Your task to perform on an android device: toggle data saver in the chrome app Image 0: 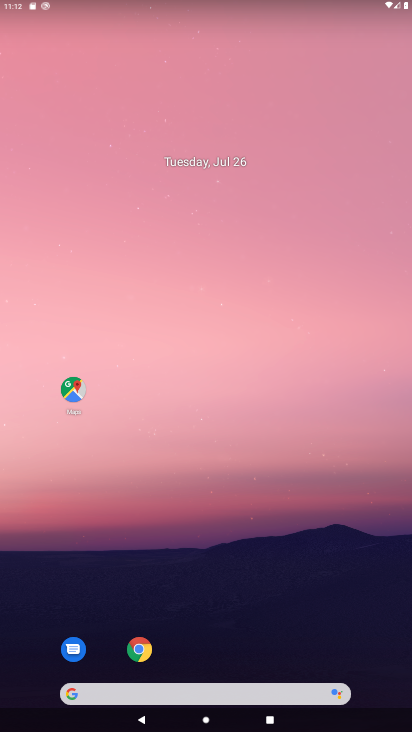
Step 0: click (144, 651)
Your task to perform on an android device: toggle data saver in the chrome app Image 1: 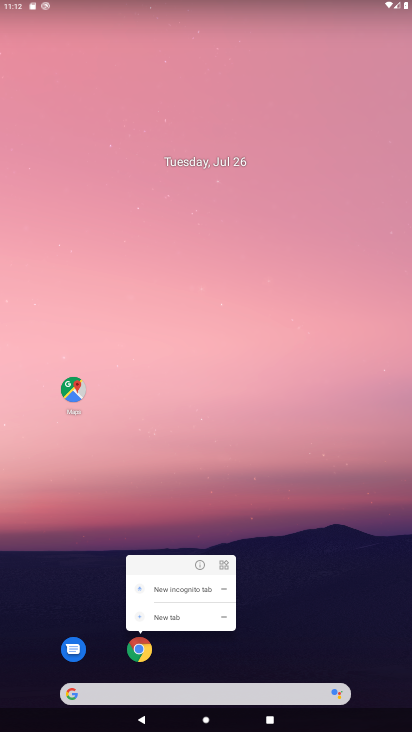
Step 1: click (142, 658)
Your task to perform on an android device: toggle data saver in the chrome app Image 2: 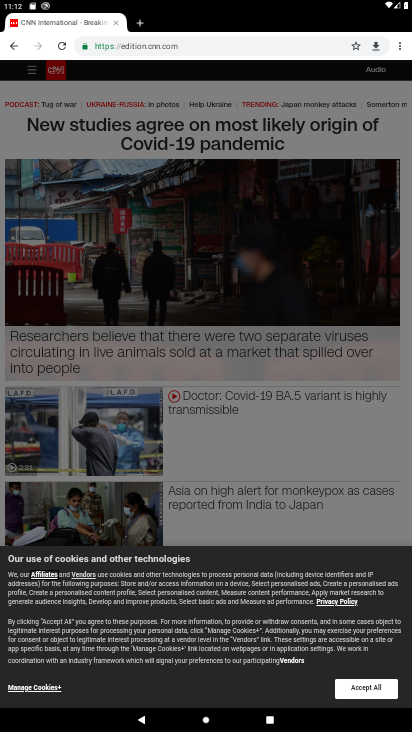
Step 2: click (397, 47)
Your task to perform on an android device: toggle data saver in the chrome app Image 3: 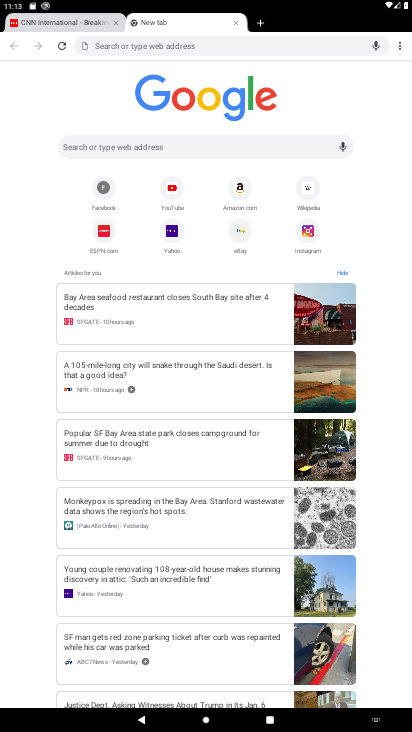
Step 3: click (398, 47)
Your task to perform on an android device: toggle data saver in the chrome app Image 4: 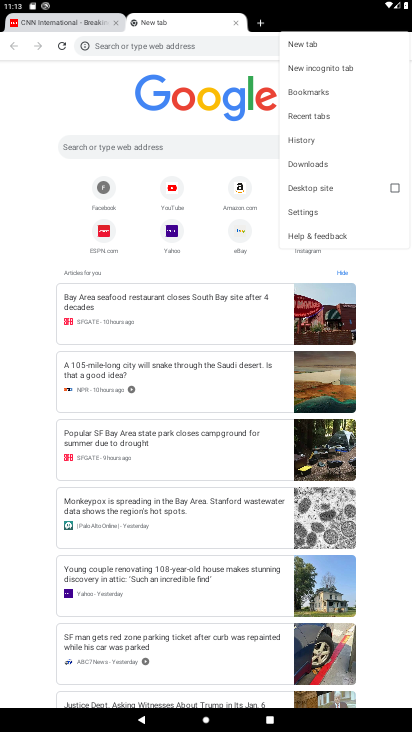
Step 4: click (304, 213)
Your task to perform on an android device: toggle data saver in the chrome app Image 5: 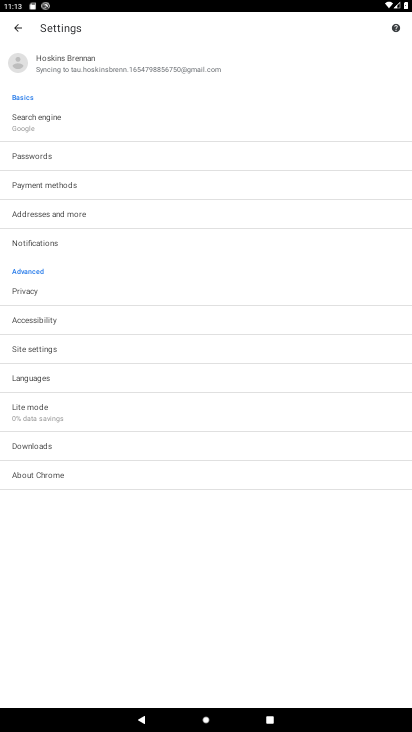
Step 5: click (44, 415)
Your task to perform on an android device: toggle data saver in the chrome app Image 6: 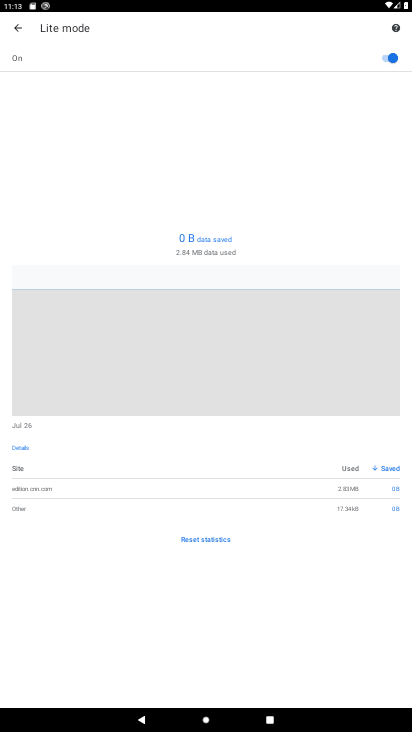
Step 6: click (367, 62)
Your task to perform on an android device: toggle data saver in the chrome app Image 7: 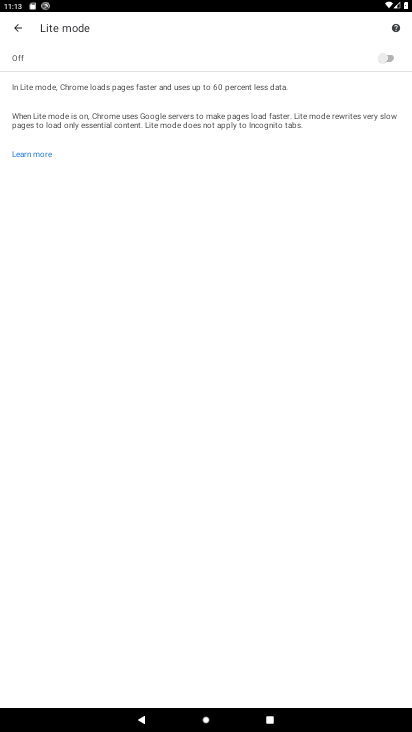
Step 7: task complete